Your task to perform on an android device: Search for asus rog on target, select the first entry, add it to the cart, then select checkout. Image 0: 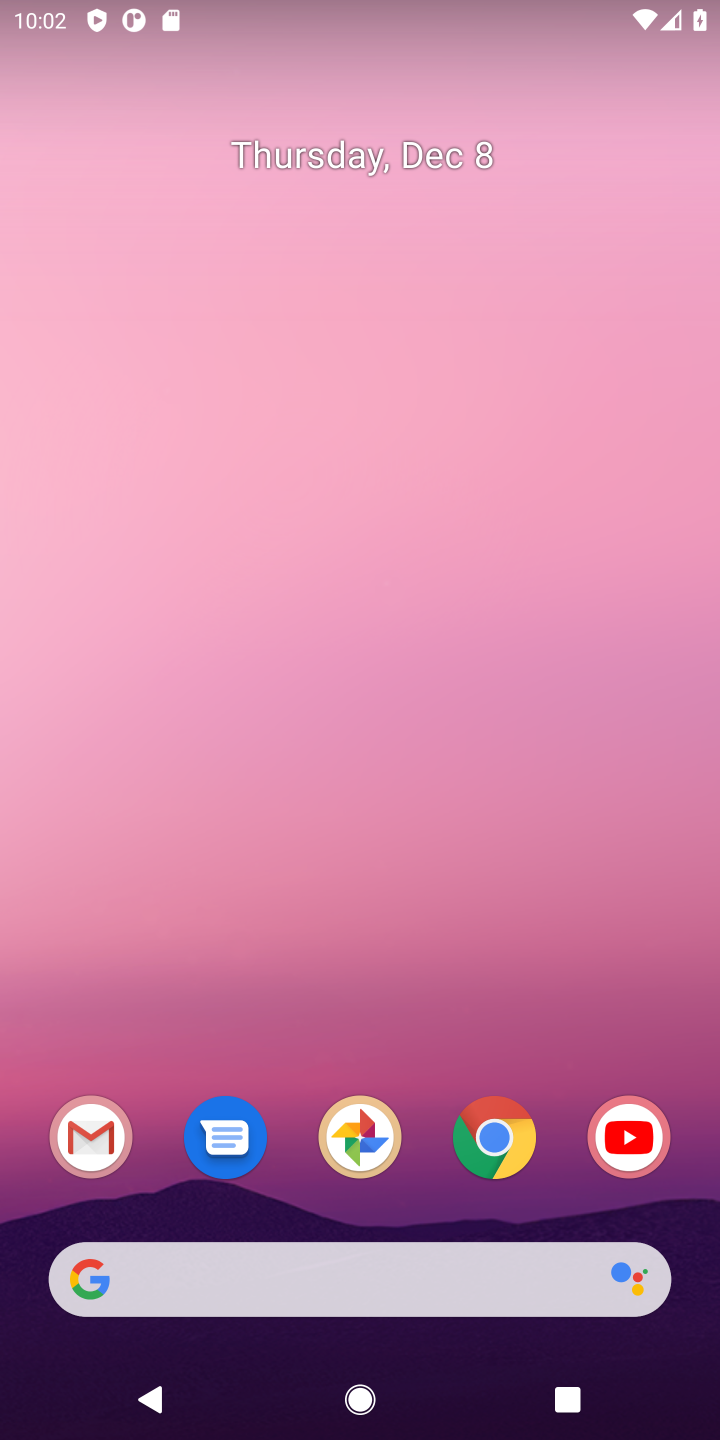
Step 0: task complete